Your task to perform on an android device: Show the shopping cart on ebay.com. Add razer nari to the cart on ebay.com, then select checkout. Image 0: 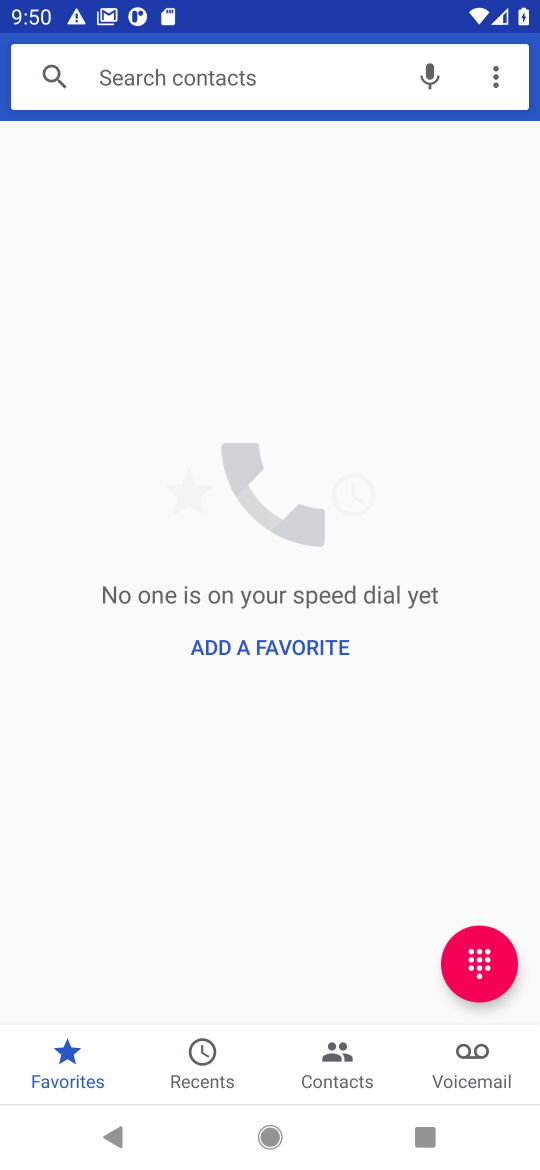
Step 0: press home button
Your task to perform on an android device: Show the shopping cart on ebay.com. Add razer nari to the cart on ebay.com, then select checkout. Image 1: 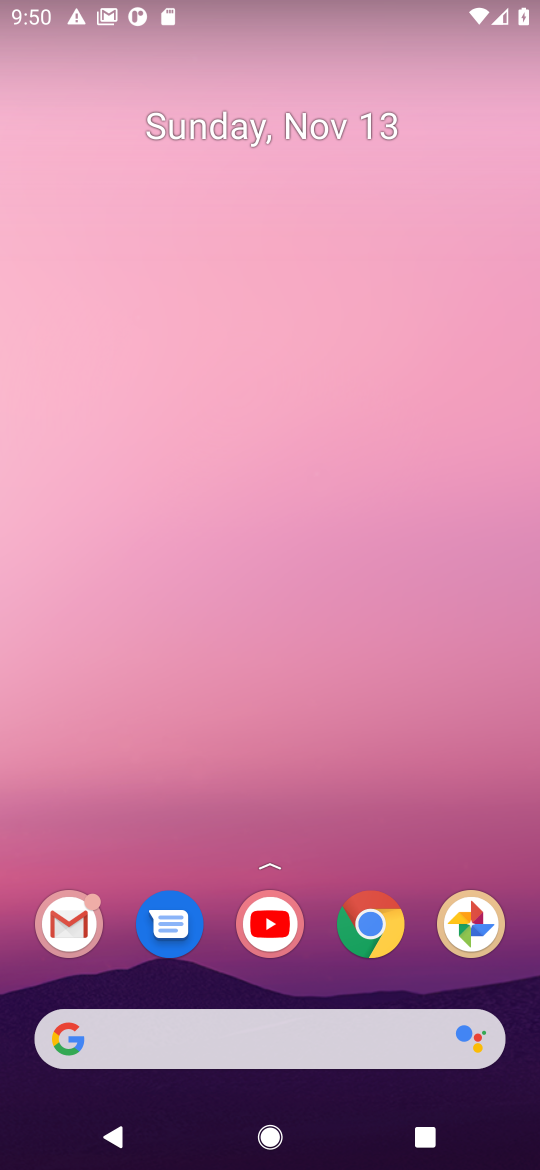
Step 1: click (371, 927)
Your task to perform on an android device: Show the shopping cart on ebay.com. Add razer nari to the cart on ebay.com, then select checkout. Image 2: 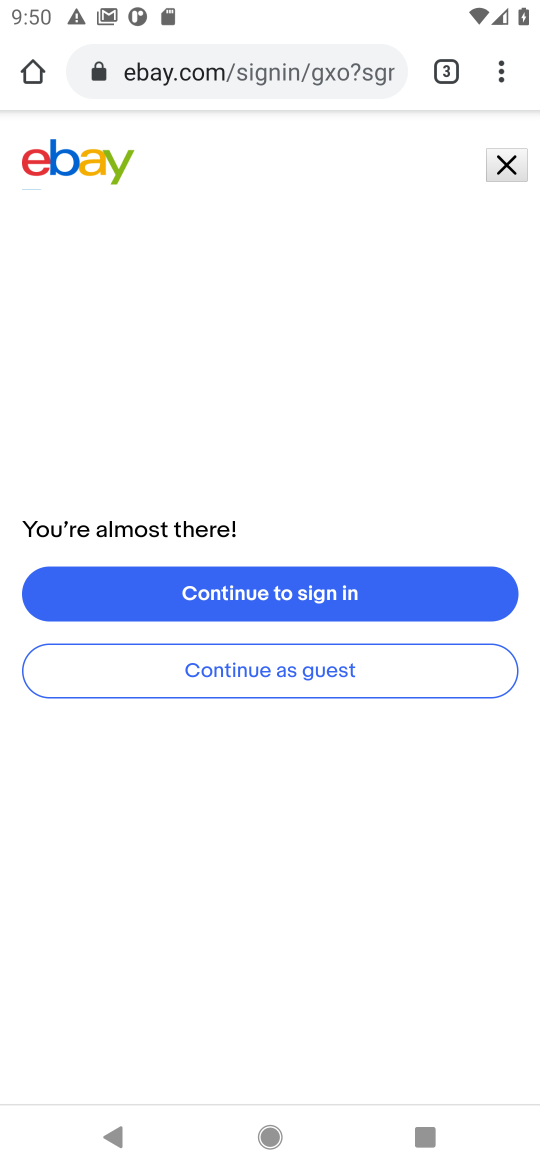
Step 2: click (505, 173)
Your task to perform on an android device: Show the shopping cart on ebay.com. Add razer nari to the cart on ebay.com, then select checkout. Image 3: 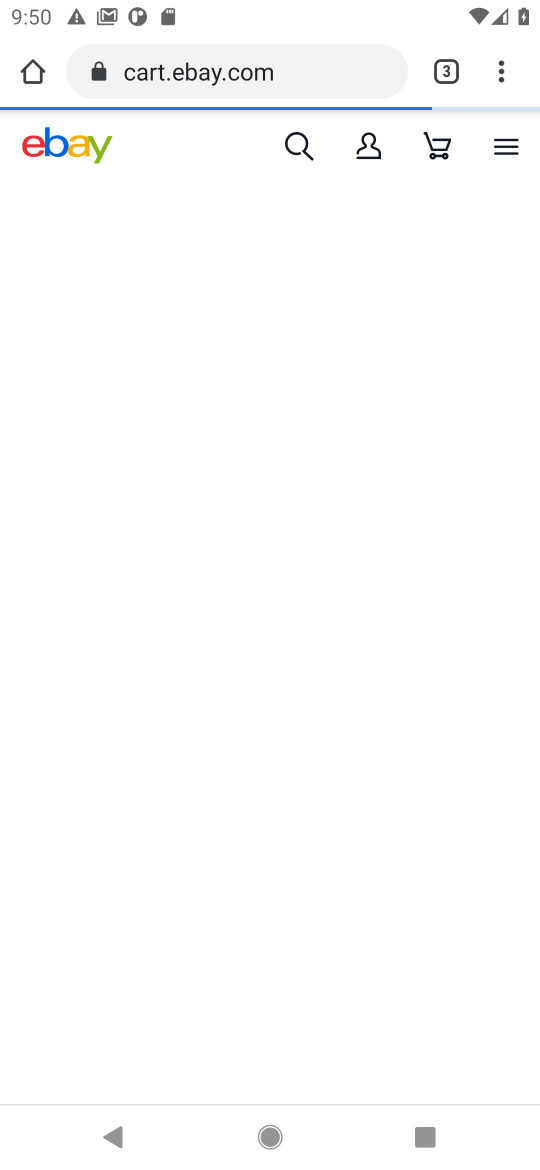
Step 3: click (435, 153)
Your task to perform on an android device: Show the shopping cart on ebay.com. Add razer nari to the cart on ebay.com, then select checkout. Image 4: 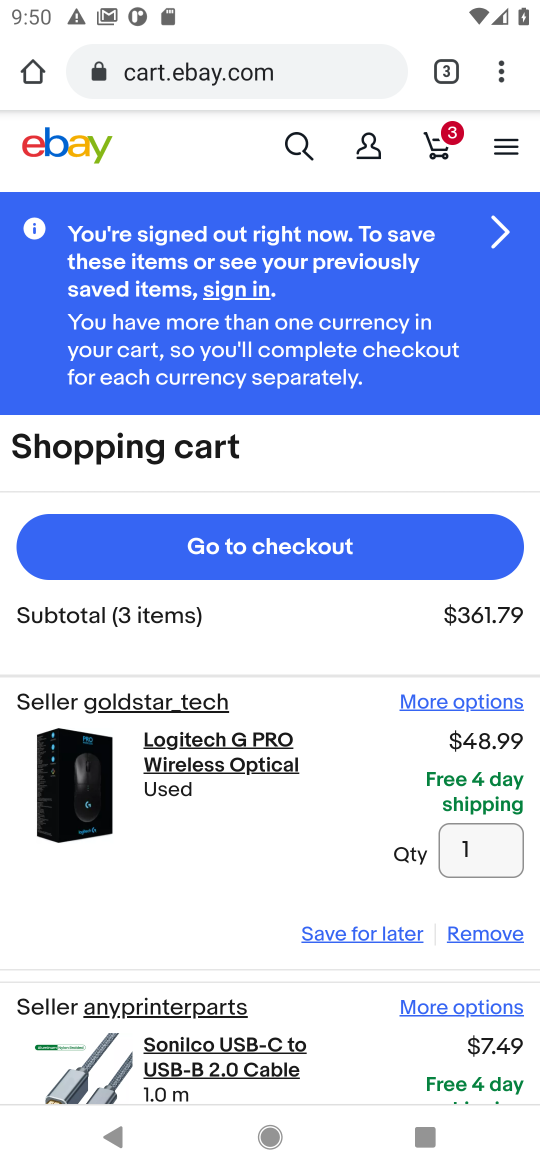
Step 4: click (299, 133)
Your task to perform on an android device: Show the shopping cart on ebay.com. Add razer nari to the cart on ebay.com, then select checkout. Image 5: 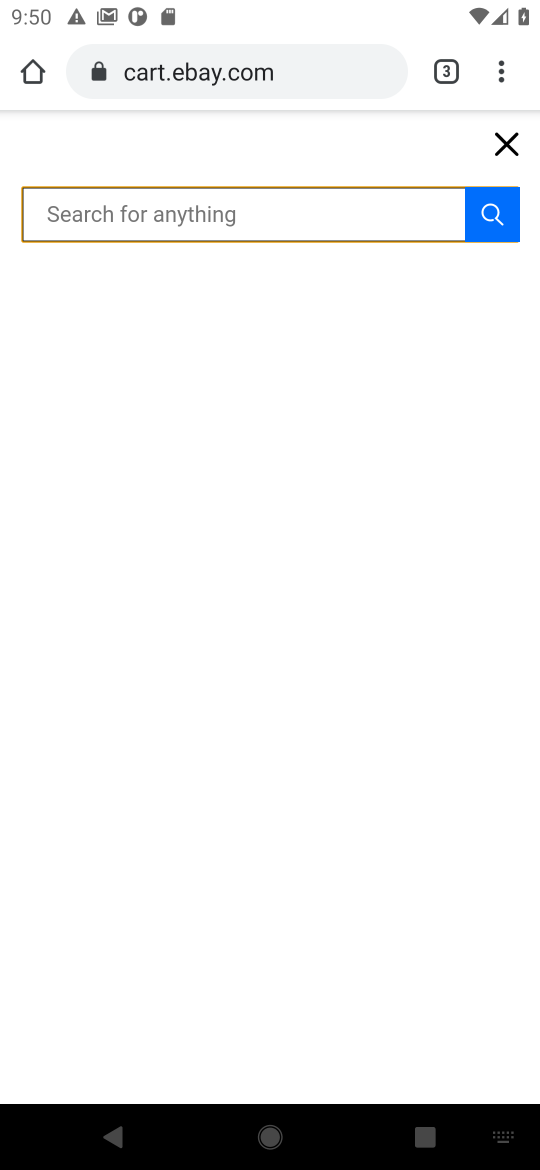
Step 5: type " razer nari"
Your task to perform on an android device: Show the shopping cart on ebay.com. Add razer nari to the cart on ebay.com, then select checkout. Image 6: 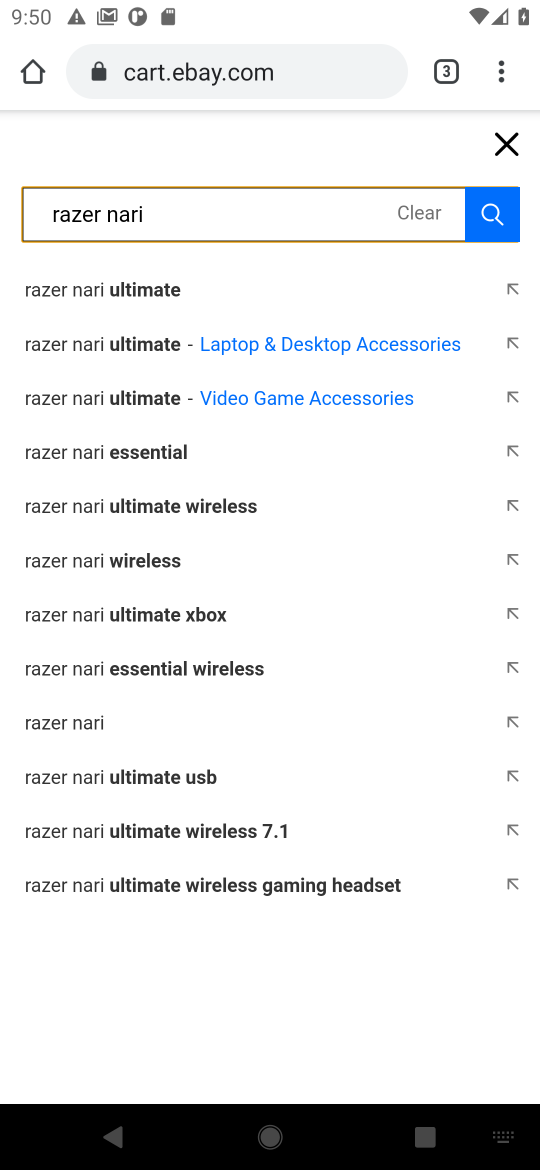
Step 6: click (73, 732)
Your task to perform on an android device: Show the shopping cart on ebay.com. Add razer nari to the cart on ebay.com, then select checkout. Image 7: 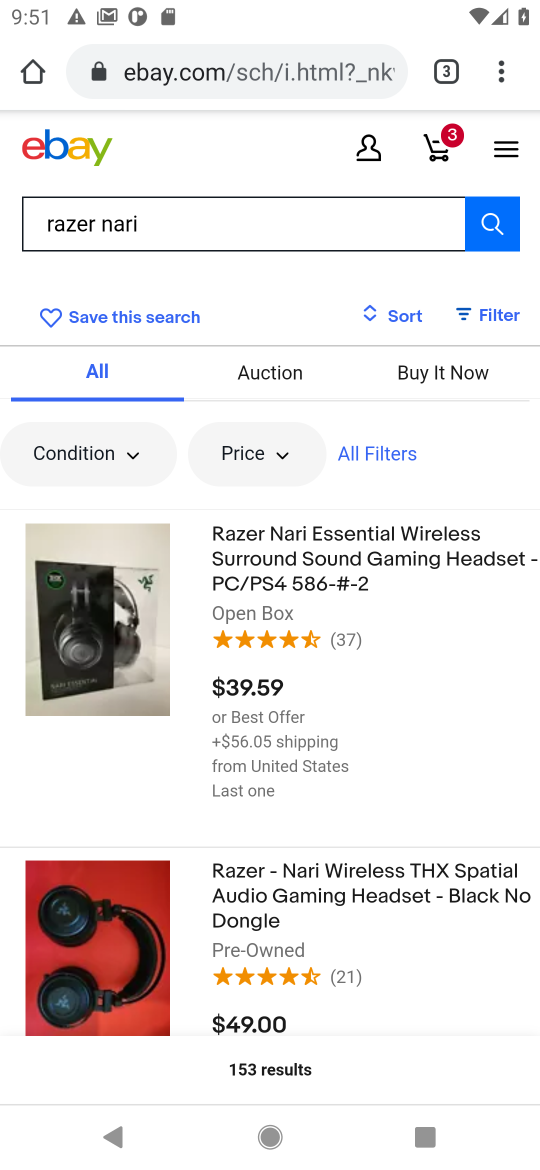
Step 7: click (77, 616)
Your task to perform on an android device: Show the shopping cart on ebay.com. Add razer nari to the cart on ebay.com, then select checkout. Image 8: 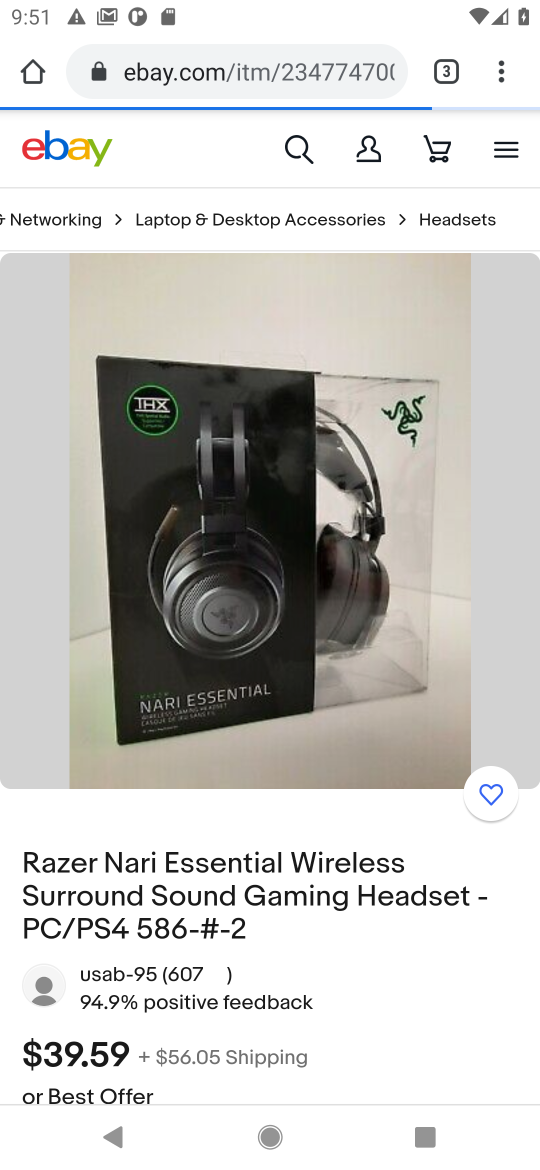
Step 8: drag from (185, 864) to (189, 371)
Your task to perform on an android device: Show the shopping cart on ebay.com. Add razer nari to the cart on ebay.com, then select checkout. Image 9: 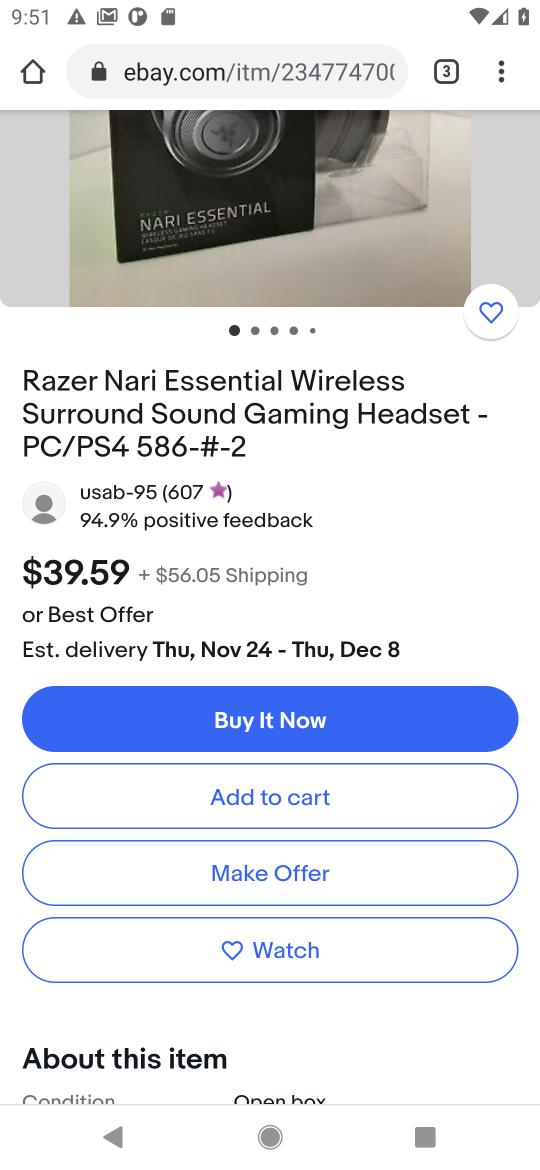
Step 9: click (213, 798)
Your task to perform on an android device: Show the shopping cart on ebay.com. Add razer nari to the cart on ebay.com, then select checkout. Image 10: 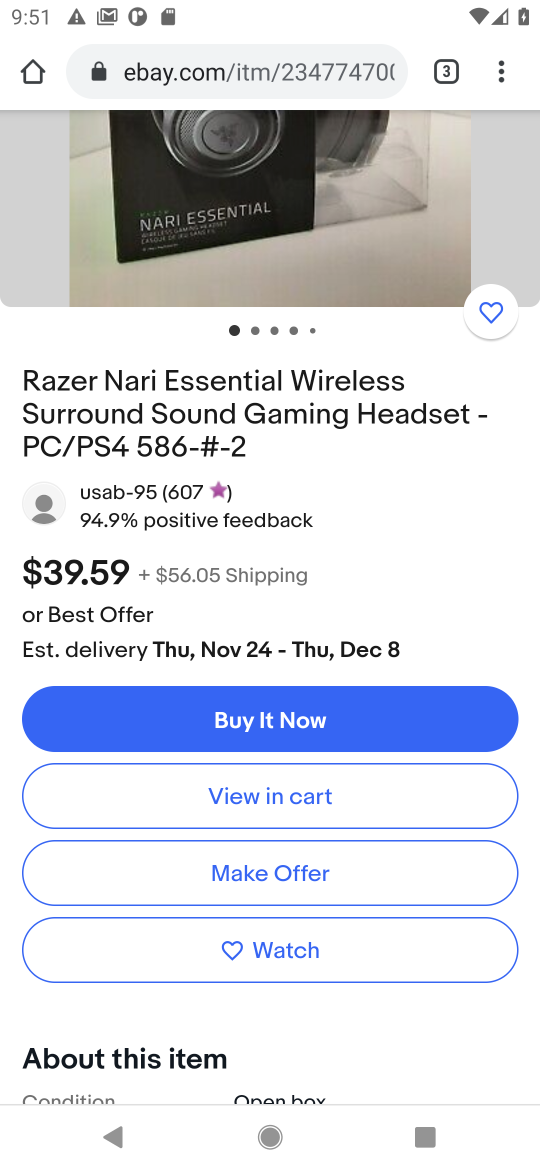
Step 10: click (213, 798)
Your task to perform on an android device: Show the shopping cart on ebay.com. Add razer nari to the cart on ebay.com, then select checkout. Image 11: 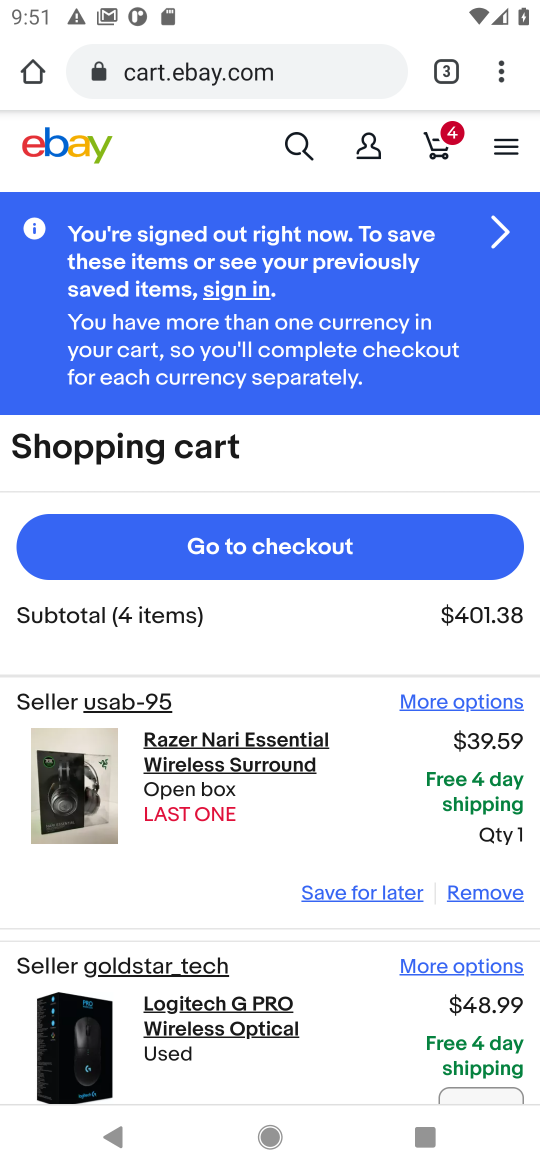
Step 11: click (212, 552)
Your task to perform on an android device: Show the shopping cart on ebay.com. Add razer nari to the cart on ebay.com, then select checkout. Image 12: 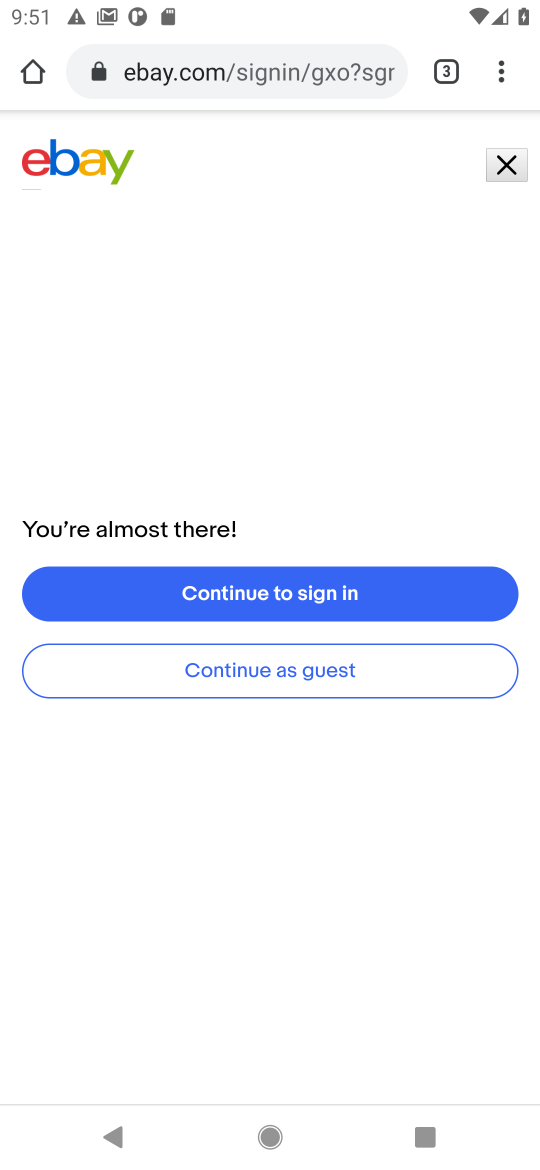
Step 12: task complete